Your task to perform on an android device: Go to network settings Image 0: 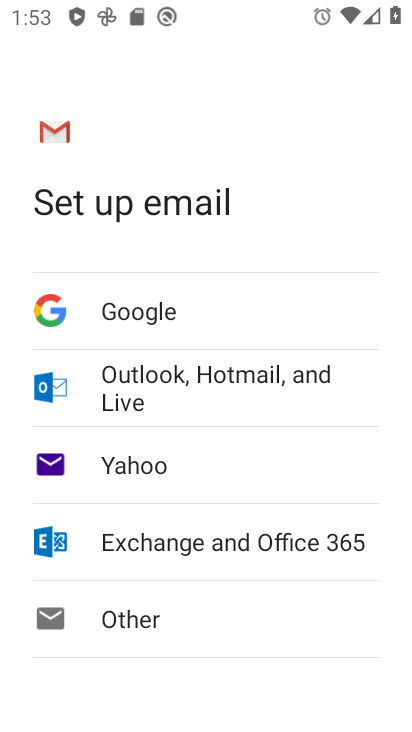
Step 0: press home button
Your task to perform on an android device: Go to network settings Image 1: 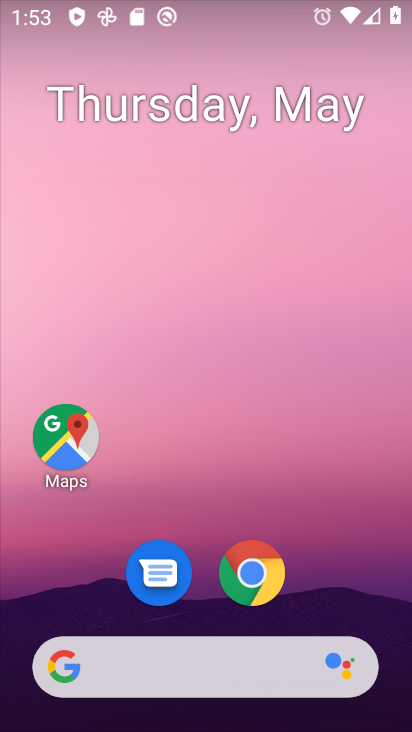
Step 1: click (347, 296)
Your task to perform on an android device: Go to network settings Image 2: 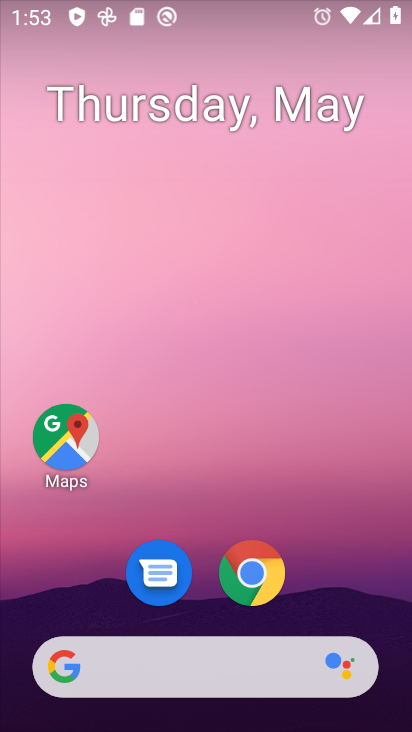
Step 2: drag from (401, 686) to (368, 383)
Your task to perform on an android device: Go to network settings Image 3: 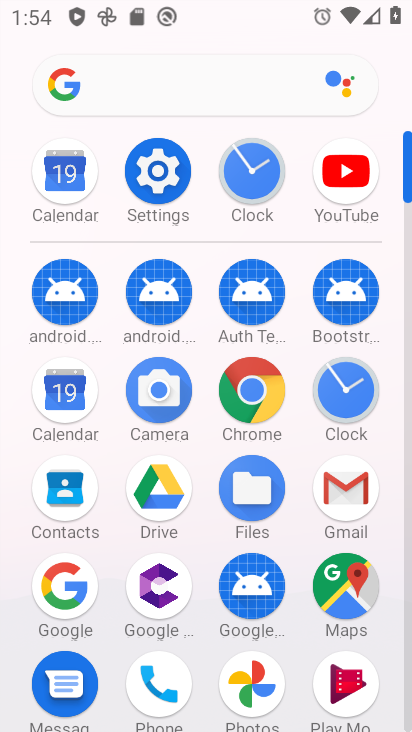
Step 3: click (158, 177)
Your task to perform on an android device: Go to network settings Image 4: 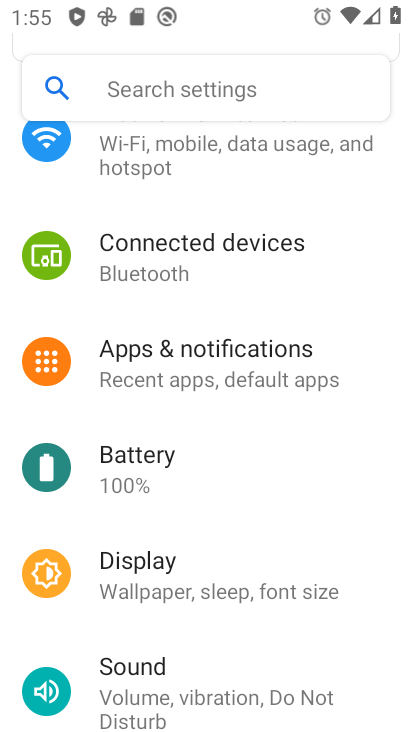
Step 4: click (167, 191)
Your task to perform on an android device: Go to network settings Image 5: 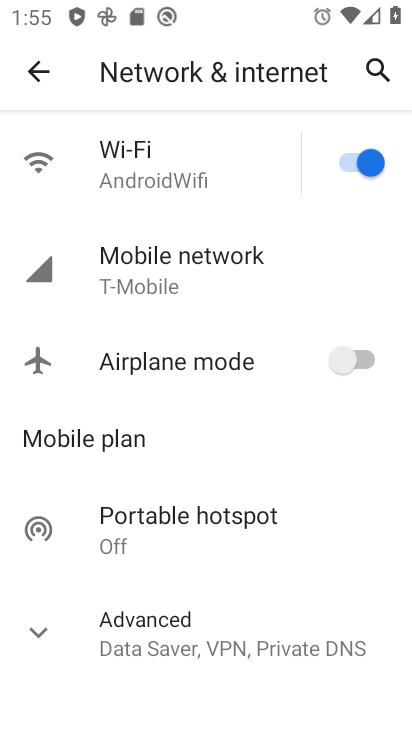
Step 5: click (131, 264)
Your task to perform on an android device: Go to network settings Image 6: 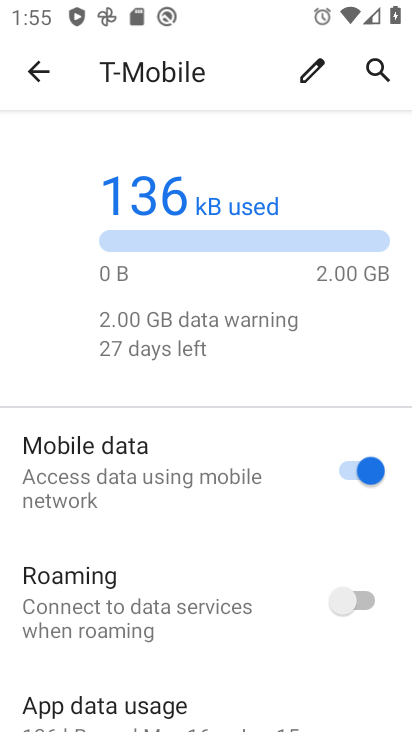
Step 6: task complete